Your task to perform on an android device: make emails show in primary in the gmail app Image 0: 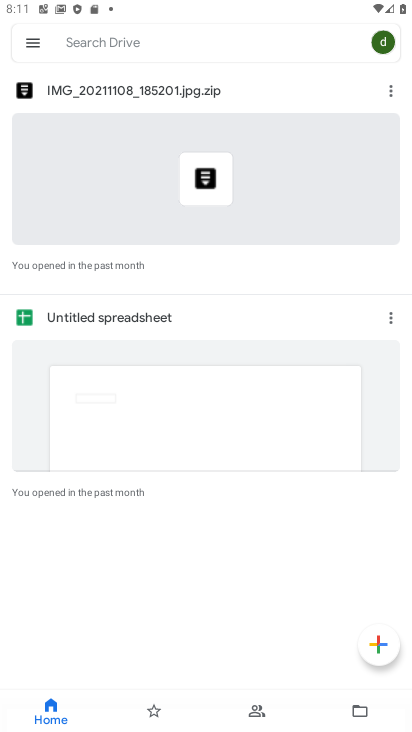
Step 0: press home button
Your task to perform on an android device: make emails show in primary in the gmail app Image 1: 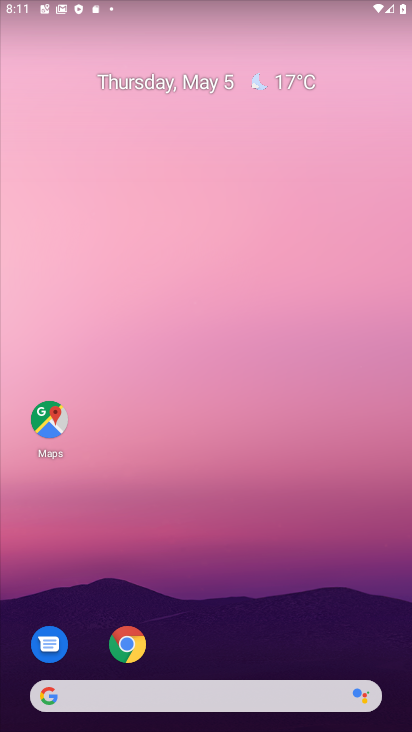
Step 1: drag from (263, 637) to (97, 190)
Your task to perform on an android device: make emails show in primary in the gmail app Image 2: 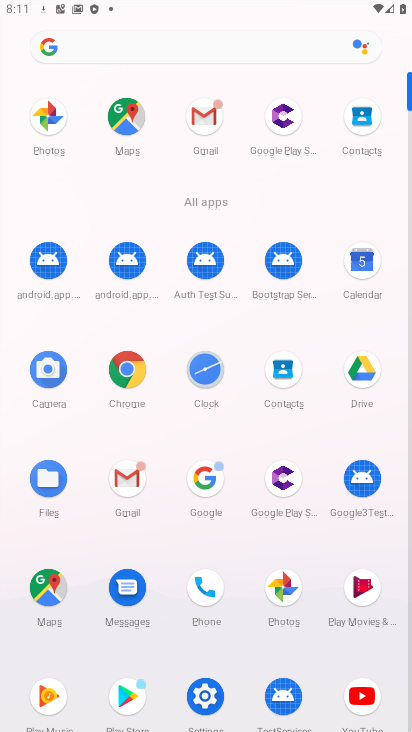
Step 2: click (203, 130)
Your task to perform on an android device: make emails show in primary in the gmail app Image 3: 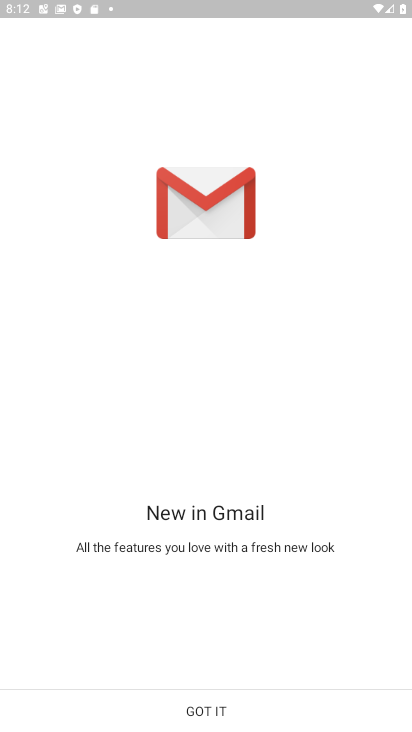
Step 3: click (223, 697)
Your task to perform on an android device: make emails show in primary in the gmail app Image 4: 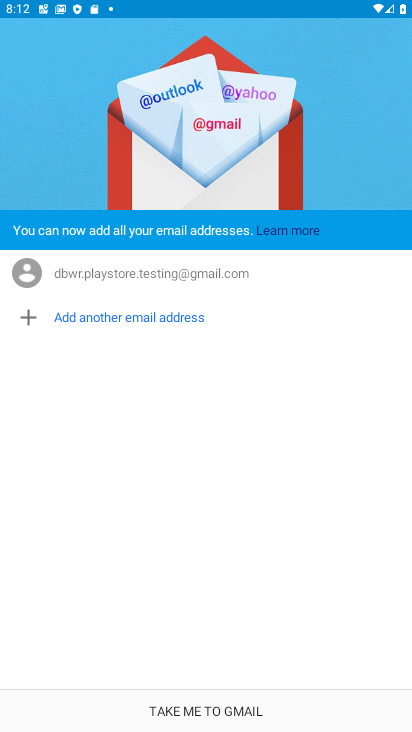
Step 4: click (219, 701)
Your task to perform on an android device: make emails show in primary in the gmail app Image 5: 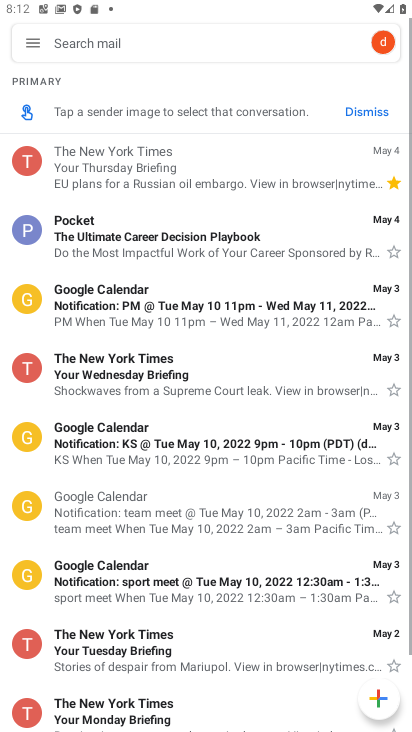
Step 5: click (38, 44)
Your task to perform on an android device: make emails show in primary in the gmail app Image 6: 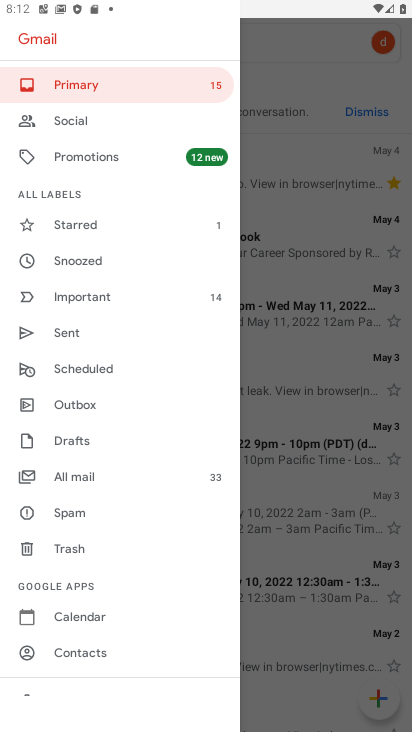
Step 6: drag from (151, 630) to (145, 350)
Your task to perform on an android device: make emails show in primary in the gmail app Image 7: 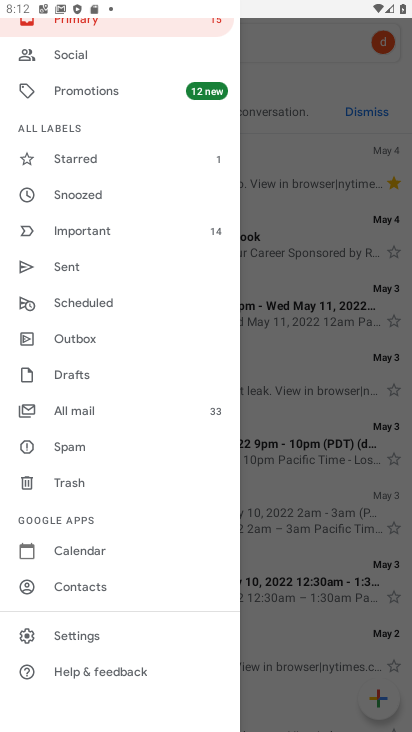
Step 7: click (116, 636)
Your task to perform on an android device: make emails show in primary in the gmail app Image 8: 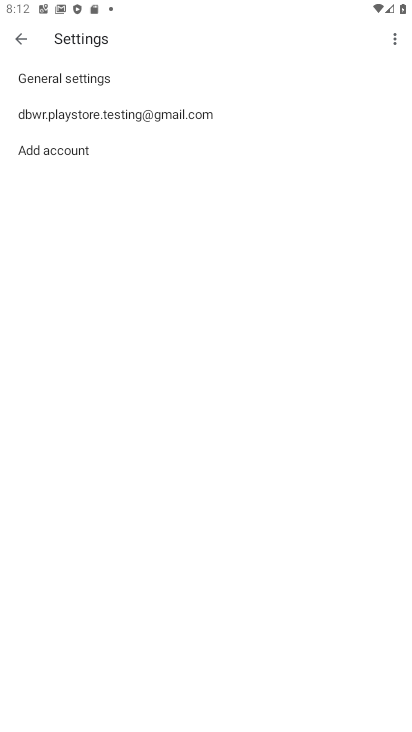
Step 8: click (182, 117)
Your task to perform on an android device: make emails show in primary in the gmail app Image 9: 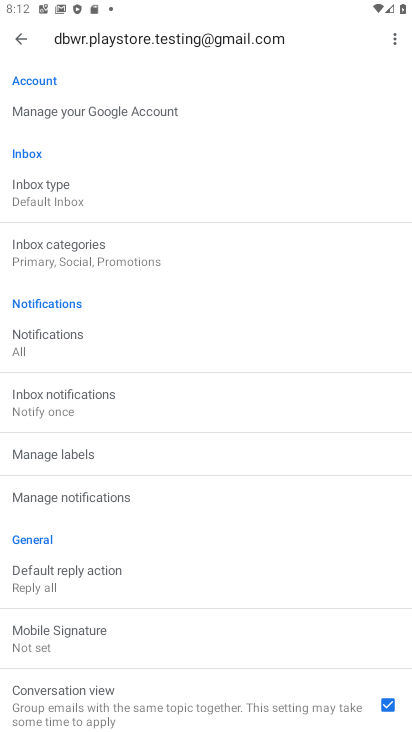
Step 9: task complete